Your task to perform on an android device: Open calendar and show me the third week of next month Image 0: 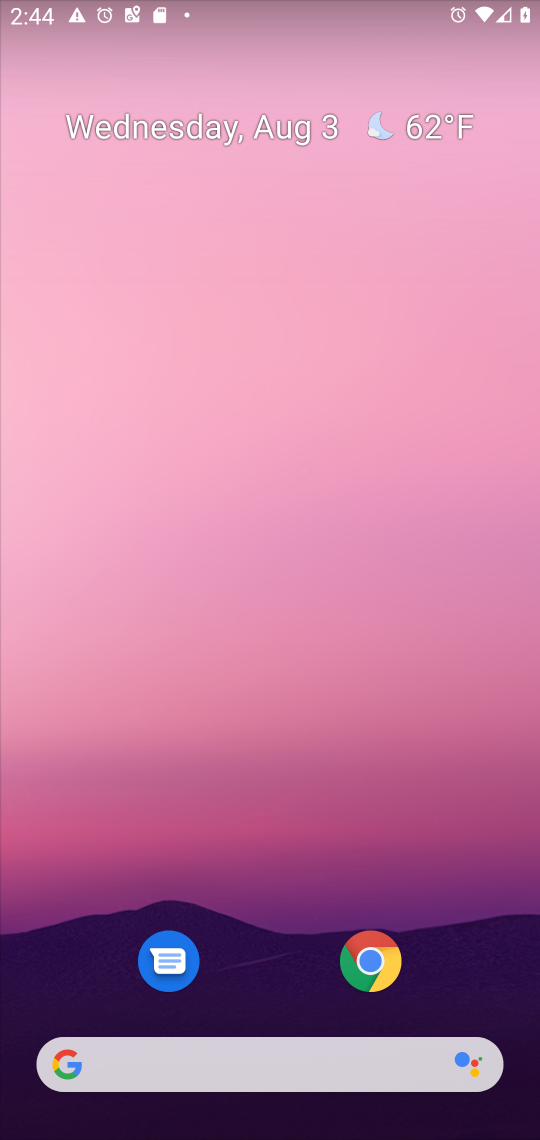
Step 0: drag from (278, 1008) to (213, 45)
Your task to perform on an android device: Open calendar and show me the third week of next month Image 1: 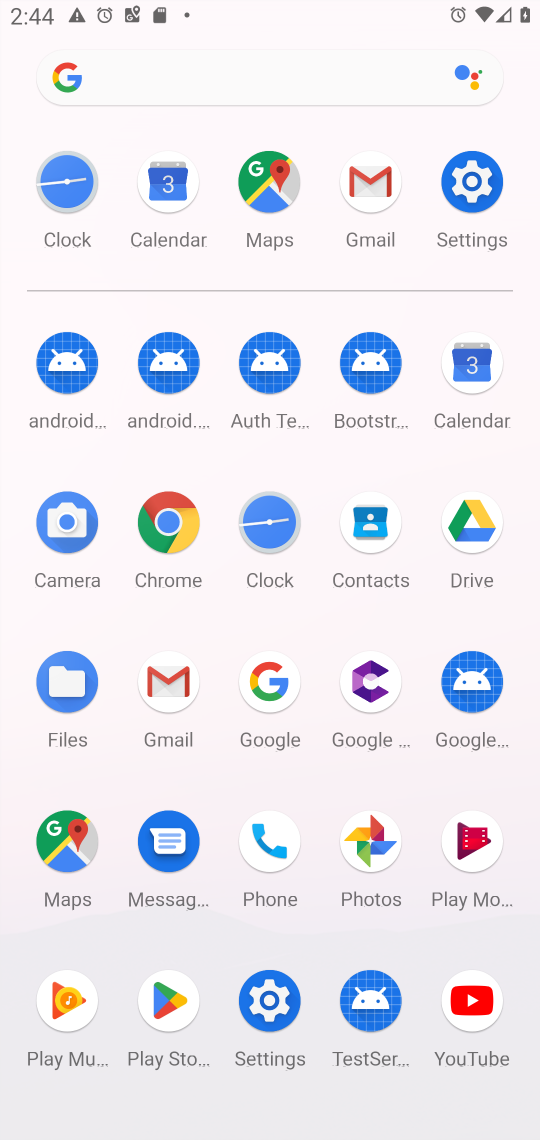
Step 1: click (476, 358)
Your task to perform on an android device: Open calendar and show me the third week of next month Image 2: 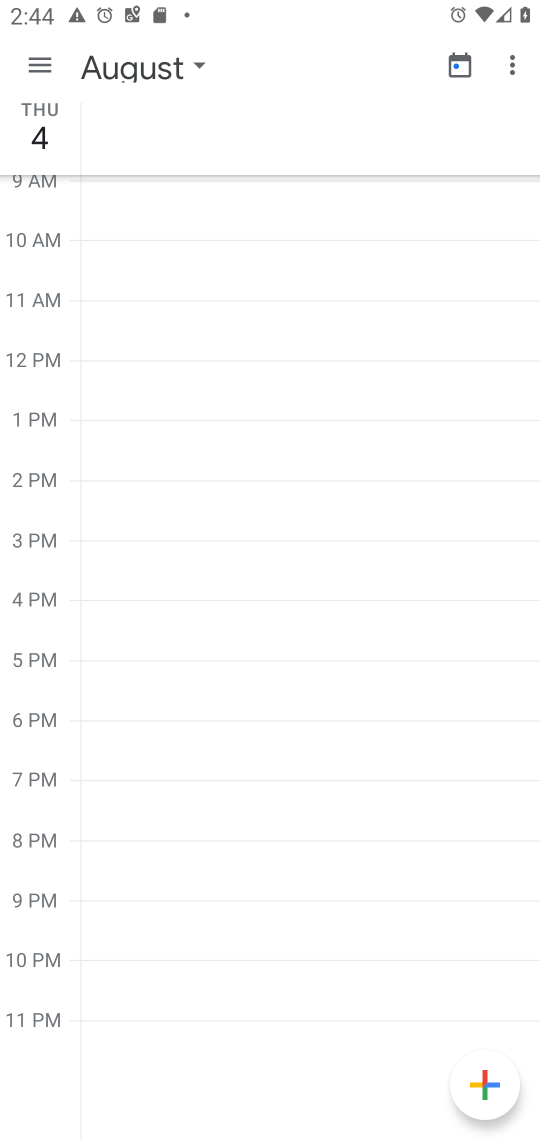
Step 2: click (202, 64)
Your task to perform on an android device: Open calendar and show me the third week of next month Image 3: 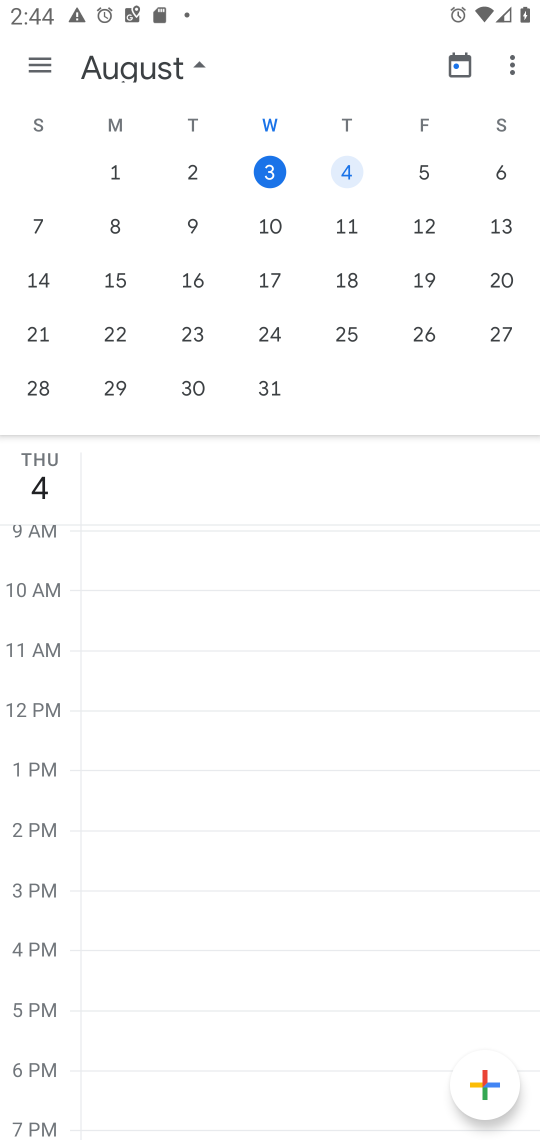
Step 3: drag from (481, 254) to (3, 71)
Your task to perform on an android device: Open calendar and show me the third week of next month Image 4: 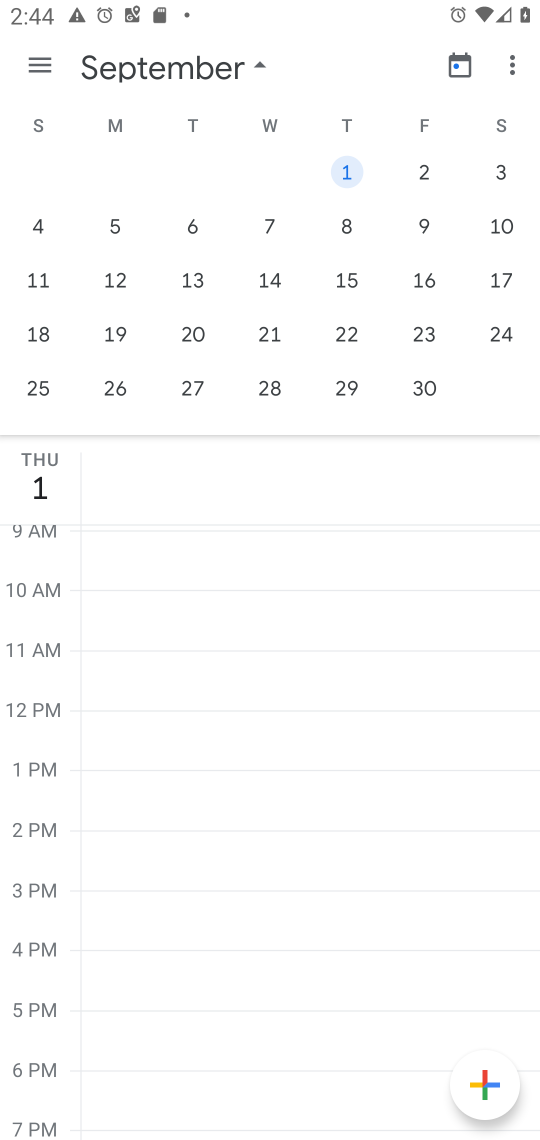
Step 4: click (38, 67)
Your task to perform on an android device: Open calendar and show me the third week of next month Image 5: 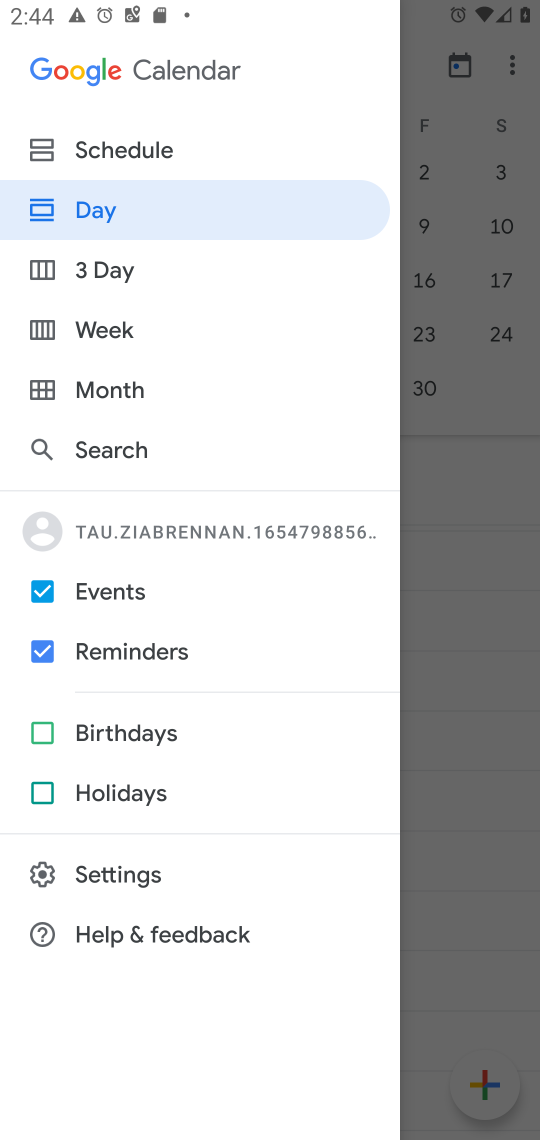
Step 5: click (94, 332)
Your task to perform on an android device: Open calendar and show me the third week of next month Image 6: 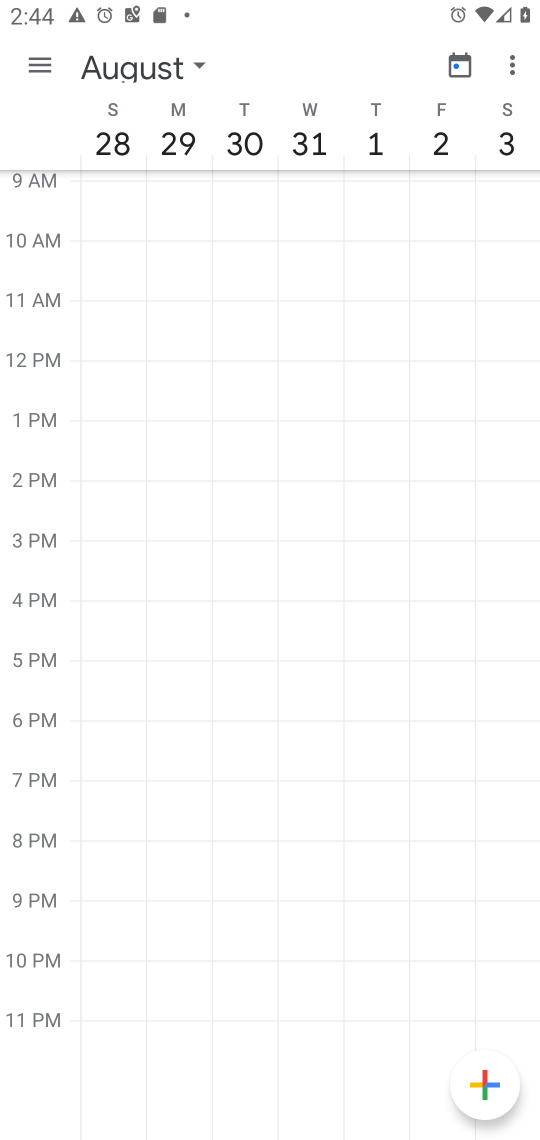
Step 6: task complete